Your task to perform on an android device: Search for Italian restaurants on Maps Image 0: 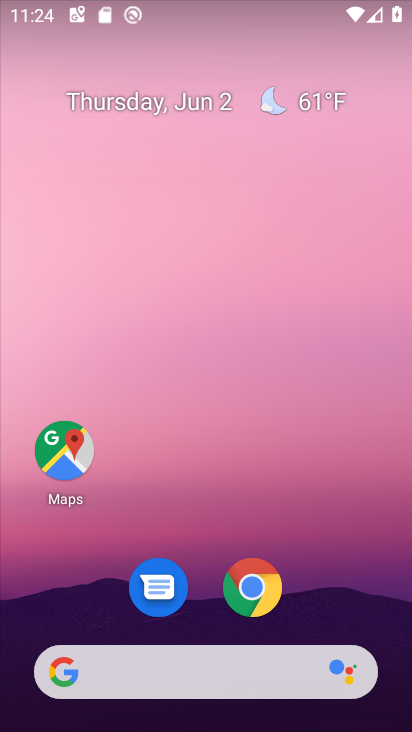
Step 0: click (60, 467)
Your task to perform on an android device: Search for Italian restaurants on Maps Image 1: 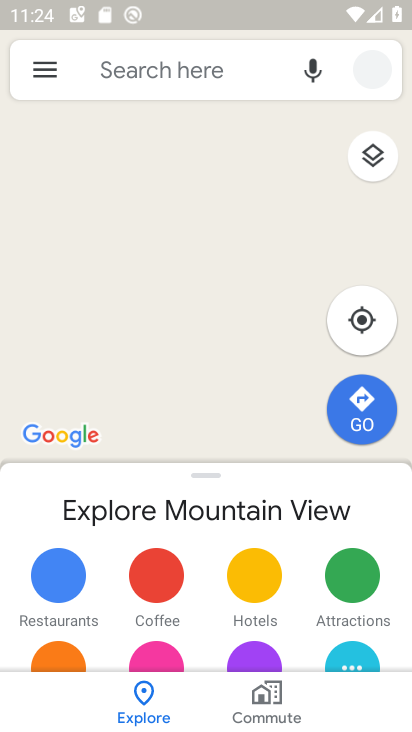
Step 1: click (200, 61)
Your task to perform on an android device: Search for Italian restaurants on Maps Image 2: 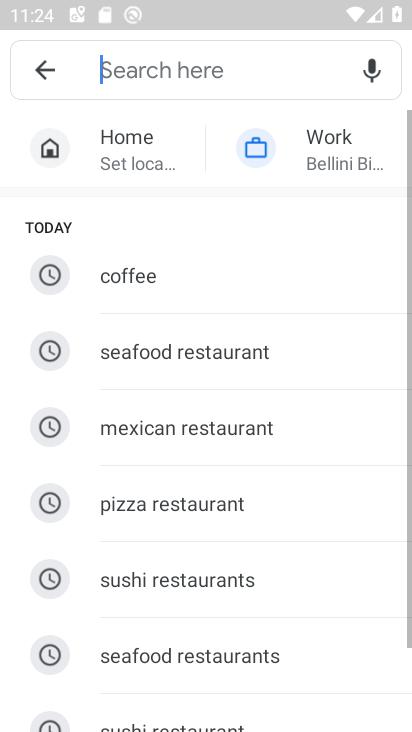
Step 2: click (200, 59)
Your task to perform on an android device: Search for Italian restaurants on Maps Image 3: 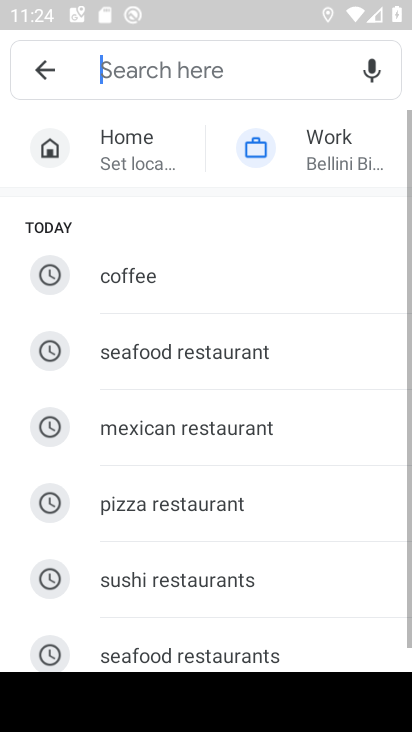
Step 3: drag from (181, 552) to (221, 289)
Your task to perform on an android device: Search for Italian restaurants on Maps Image 4: 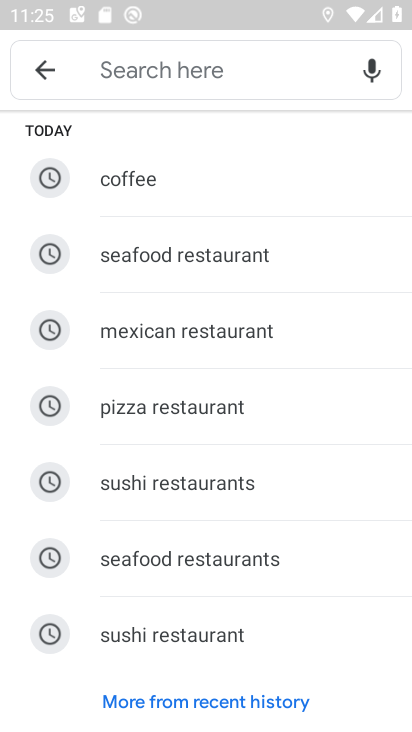
Step 4: drag from (188, 234) to (177, 539)
Your task to perform on an android device: Search for Italian restaurants on Maps Image 5: 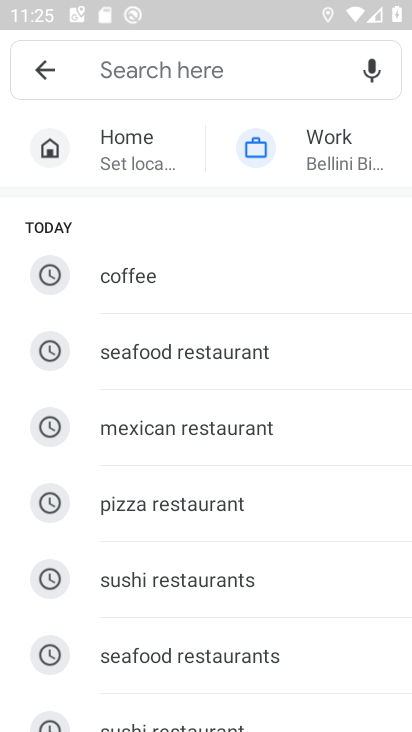
Step 5: click (209, 62)
Your task to perform on an android device: Search for Italian restaurants on Maps Image 6: 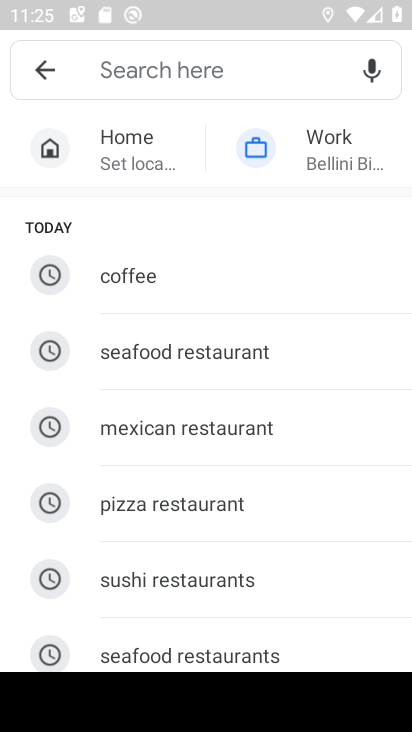
Step 6: type "Italian restaurants"
Your task to perform on an android device: Search for Italian restaurants on Maps Image 7: 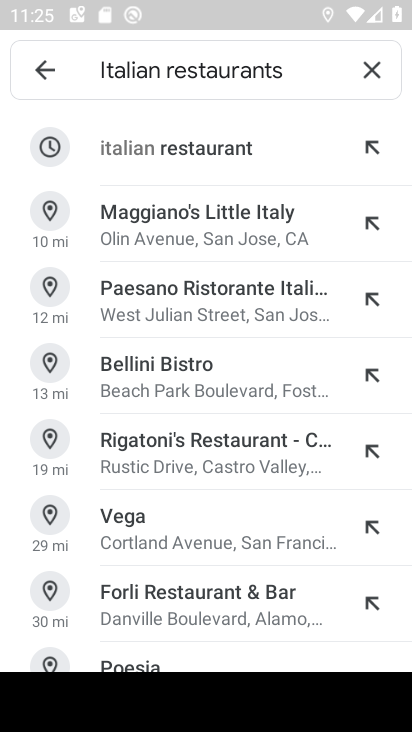
Step 7: click (193, 155)
Your task to perform on an android device: Search for Italian restaurants on Maps Image 8: 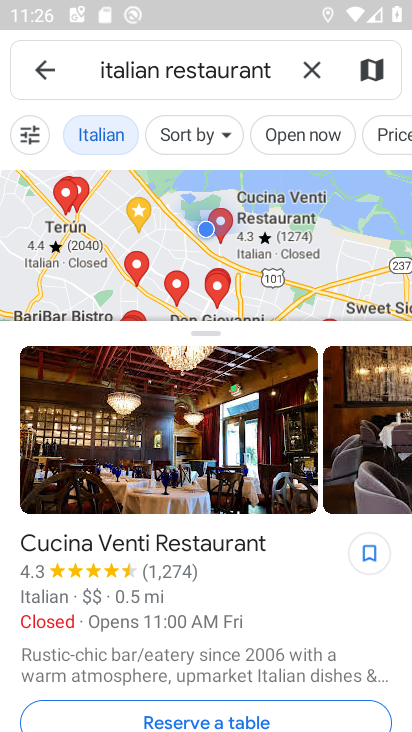
Step 8: task complete